Your task to perform on an android device: open the mobile data screen to see how much data has been used Image 0: 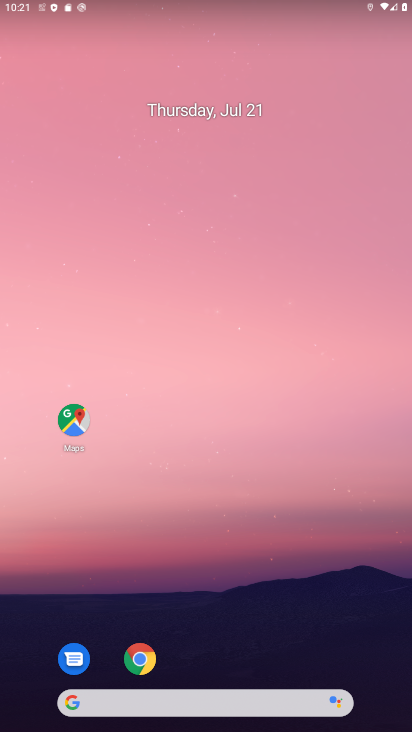
Step 0: drag from (226, 678) to (172, 206)
Your task to perform on an android device: open the mobile data screen to see how much data has been used Image 1: 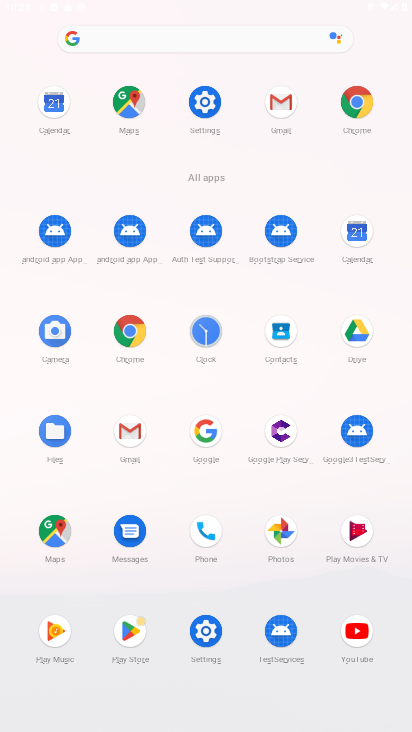
Step 1: click (209, 647)
Your task to perform on an android device: open the mobile data screen to see how much data has been used Image 2: 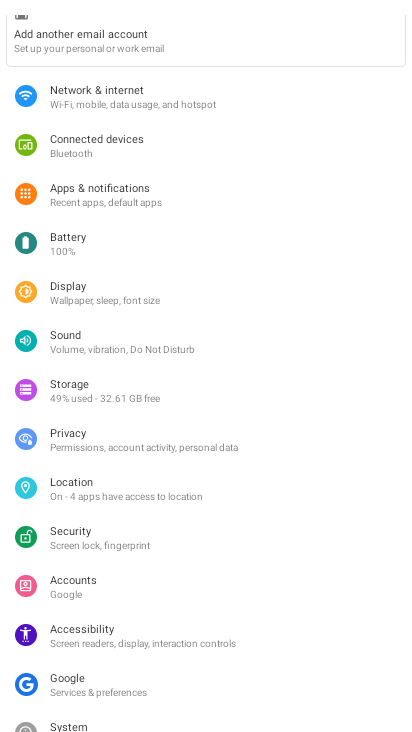
Step 2: click (77, 111)
Your task to perform on an android device: open the mobile data screen to see how much data has been used Image 3: 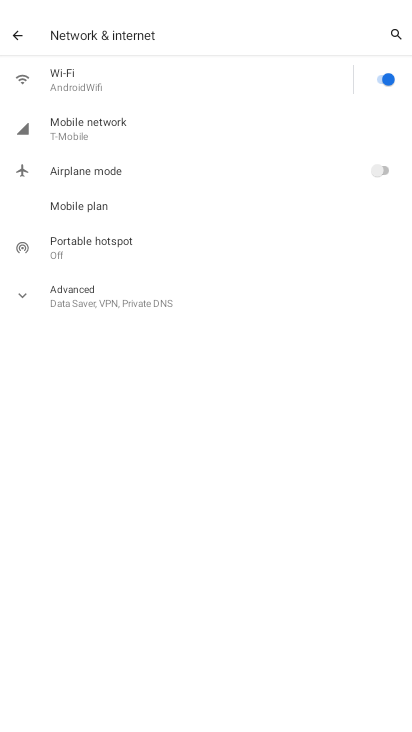
Step 3: click (83, 126)
Your task to perform on an android device: open the mobile data screen to see how much data has been used Image 4: 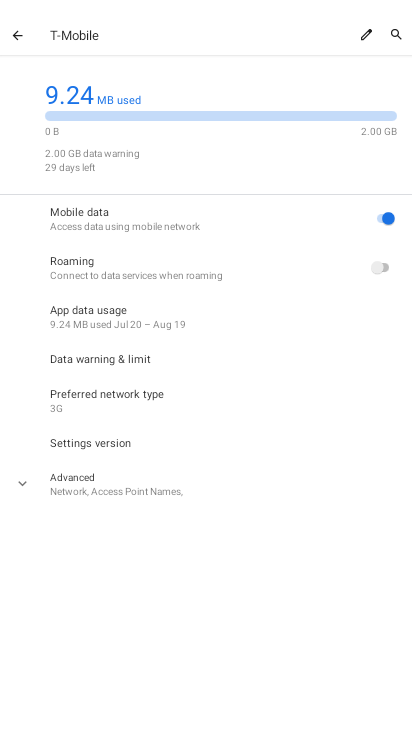
Step 4: task complete